Your task to perform on an android device: Open display settings Image 0: 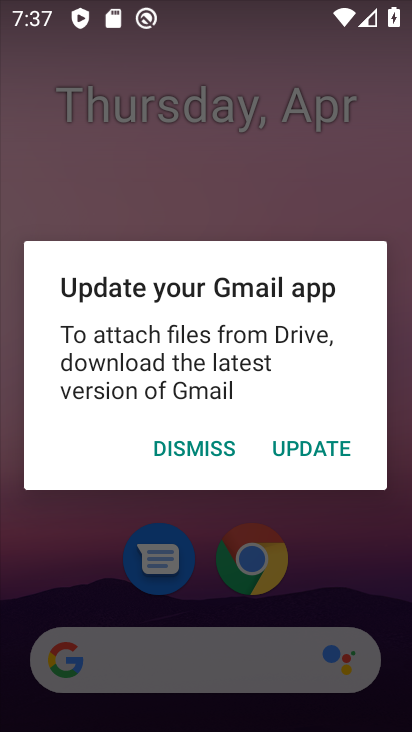
Step 0: press home button
Your task to perform on an android device: Open display settings Image 1: 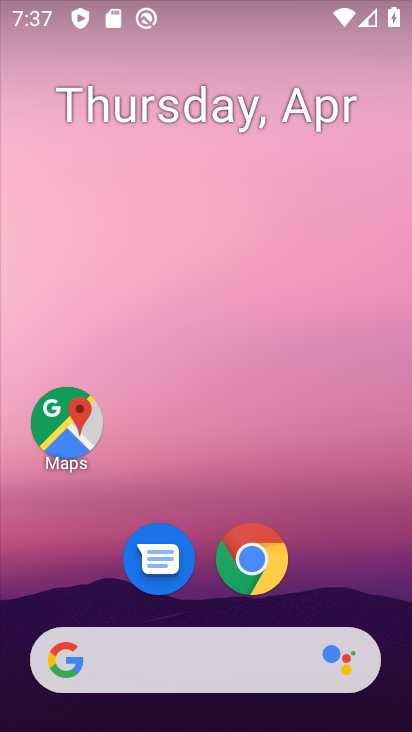
Step 1: drag from (217, 716) to (282, 10)
Your task to perform on an android device: Open display settings Image 2: 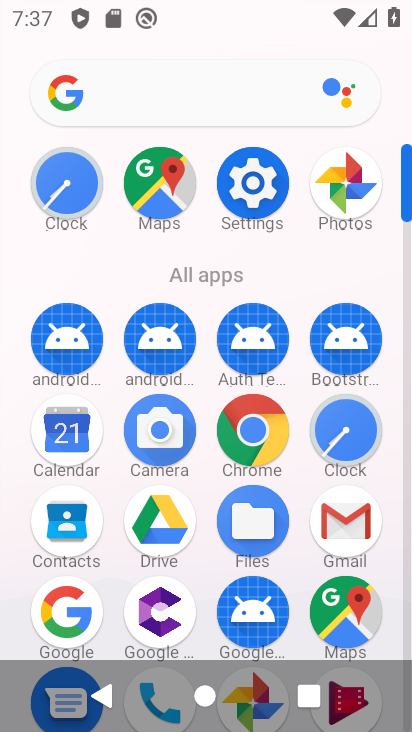
Step 2: click (248, 182)
Your task to perform on an android device: Open display settings Image 3: 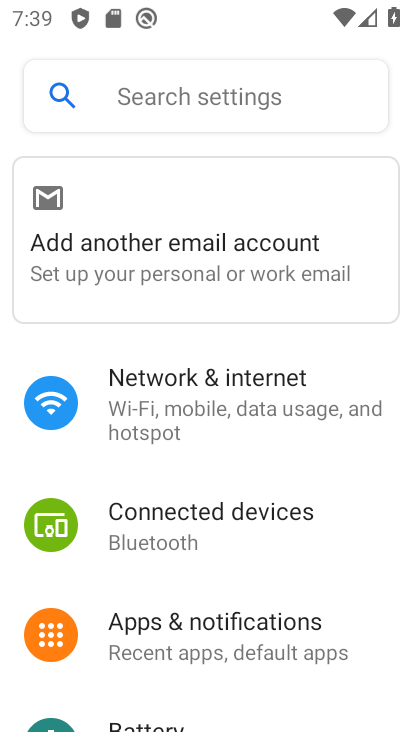
Step 3: drag from (311, 533) to (263, 58)
Your task to perform on an android device: Open display settings Image 4: 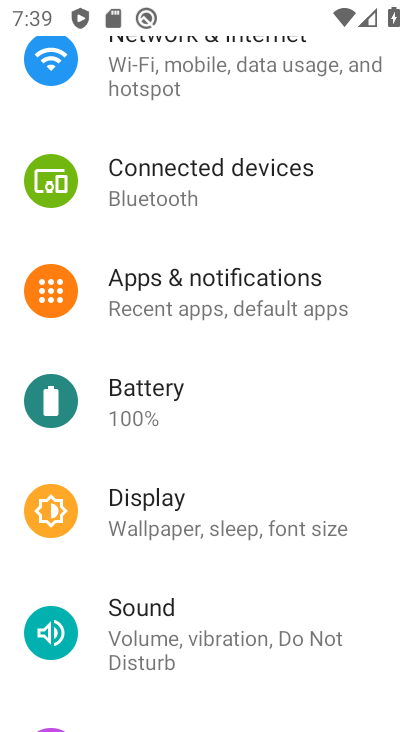
Step 4: click (280, 526)
Your task to perform on an android device: Open display settings Image 5: 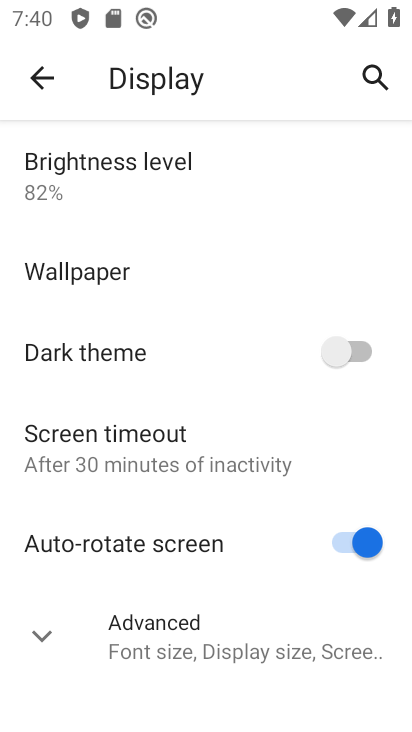
Step 5: task complete